Your task to perform on an android device: Go to calendar. Show me events next week Image 0: 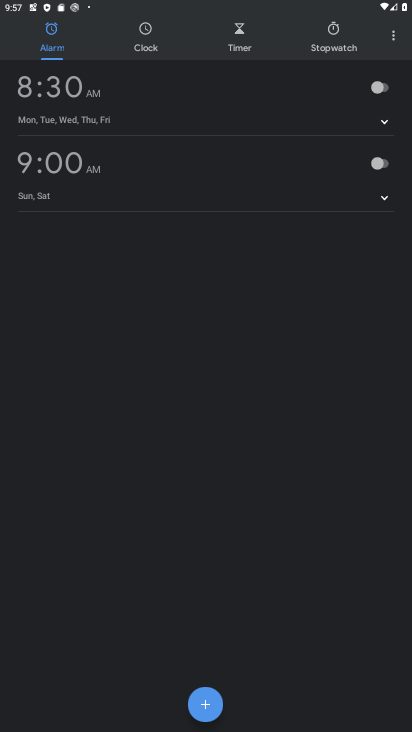
Step 0: press home button
Your task to perform on an android device: Go to calendar. Show me events next week Image 1: 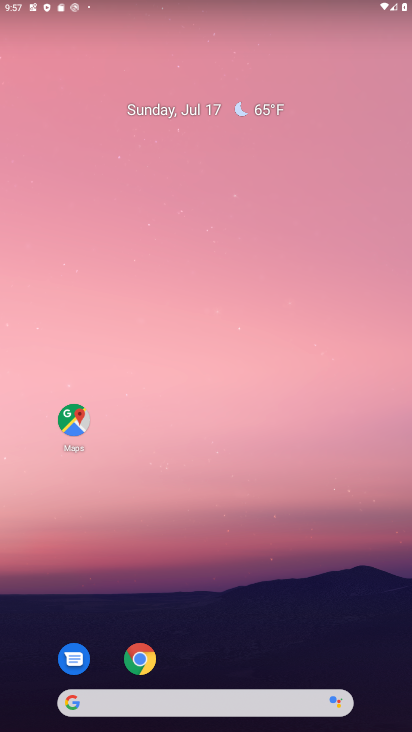
Step 1: click (170, 121)
Your task to perform on an android device: Go to calendar. Show me events next week Image 2: 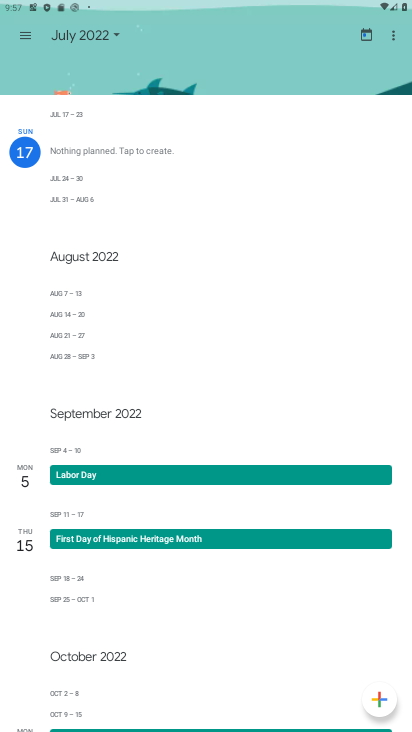
Step 2: click (114, 40)
Your task to perform on an android device: Go to calendar. Show me events next week Image 3: 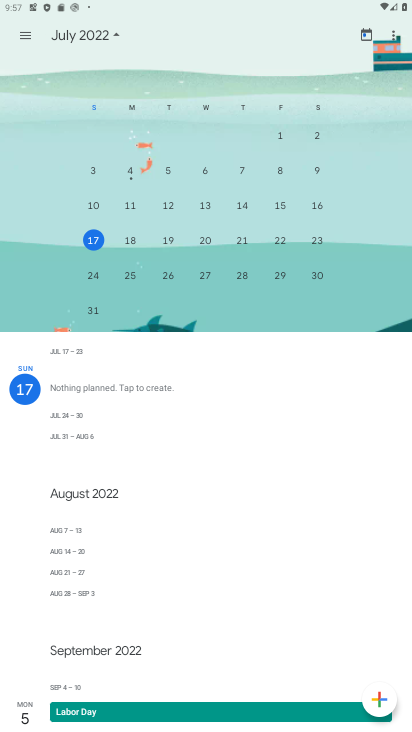
Step 3: task complete